Your task to perform on an android device: turn off priority inbox in the gmail app Image 0: 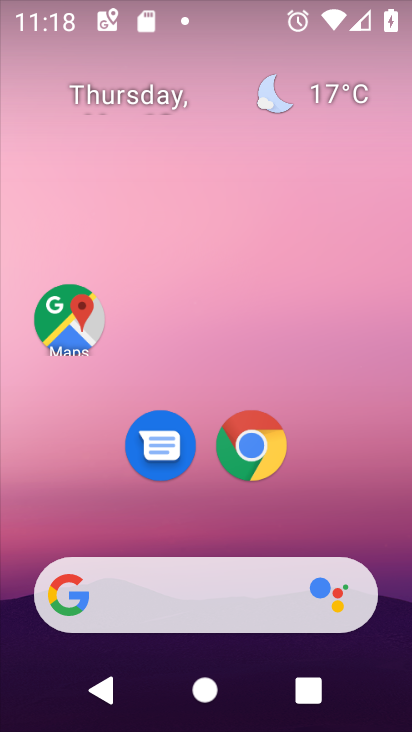
Step 0: drag from (208, 521) to (222, 234)
Your task to perform on an android device: turn off priority inbox in the gmail app Image 1: 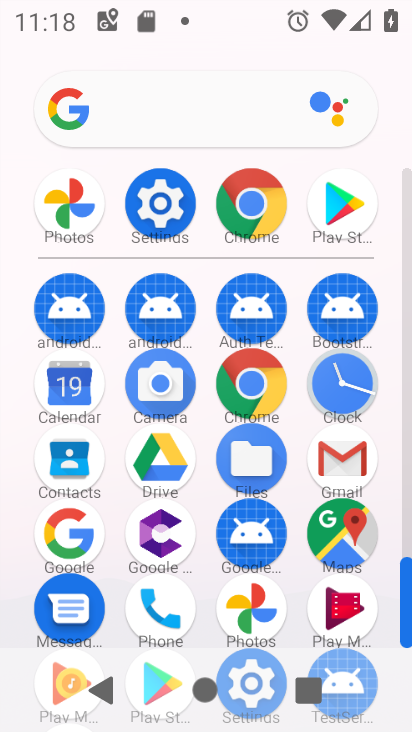
Step 1: click (365, 451)
Your task to perform on an android device: turn off priority inbox in the gmail app Image 2: 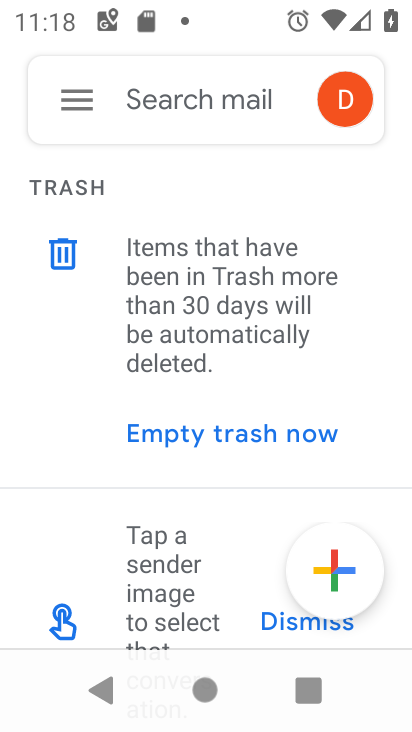
Step 2: click (64, 91)
Your task to perform on an android device: turn off priority inbox in the gmail app Image 3: 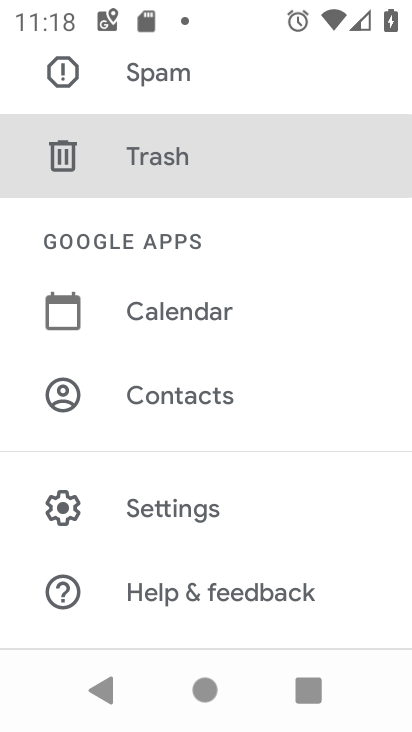
Step 3: click (191, 508)
Your task to perform on an android device: turn off priority inbox in the gmail app Image 4: 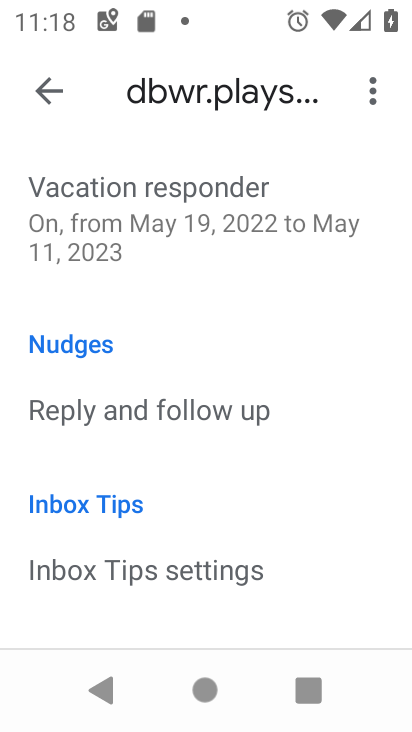
Step 4: drag from (146, 445) to (228, 664)
Your task to perform on an android device: turn off priority inbox in the gmail app Image 5: 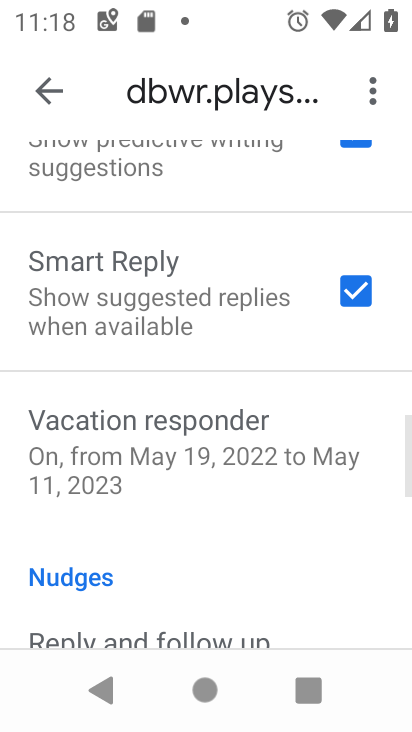
Step 5: drag from (246, 283) to (268, 624)
Your task to perform on an android device: turn off priority inbox in the gmail app Image 6: 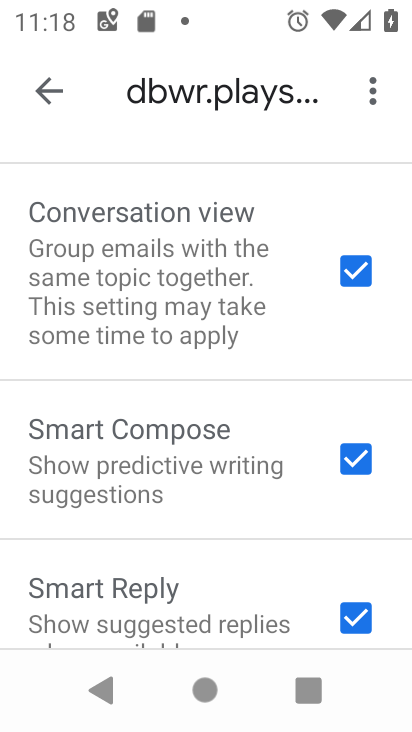
Step 6: drag from (212, 499) to (181, 714)
Your task to perform on an android device: turn off priority inbox in the gmail app Image 7: 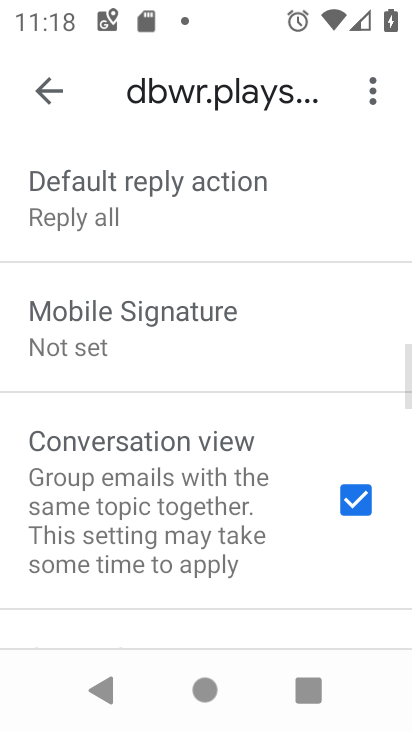
Step 7: drag from (210, 337) to (252, 686)
Your task to perform on an android device: turn off priority inbox in the gmail app Image 8: 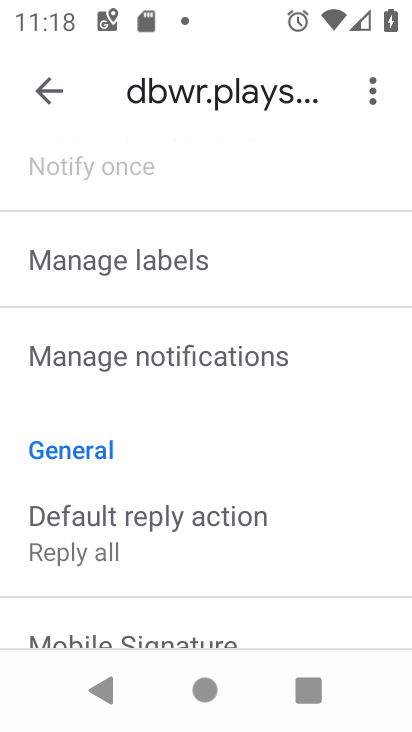
Step 8: drag from (234, 344) to (276, 675)
Your task to perform on an android device: turn off priority inbox in the gmail app Image 9: 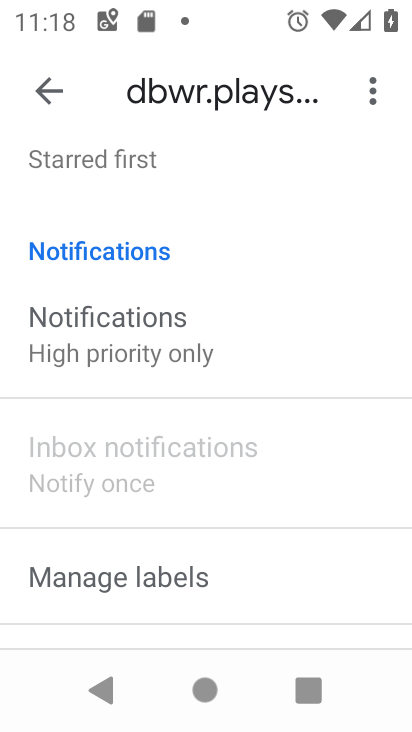
Step 9: drag from (248, 299) to (303, 548)
Your task to perform on an android device: turn off priority inbox in the gmail app Image 10: 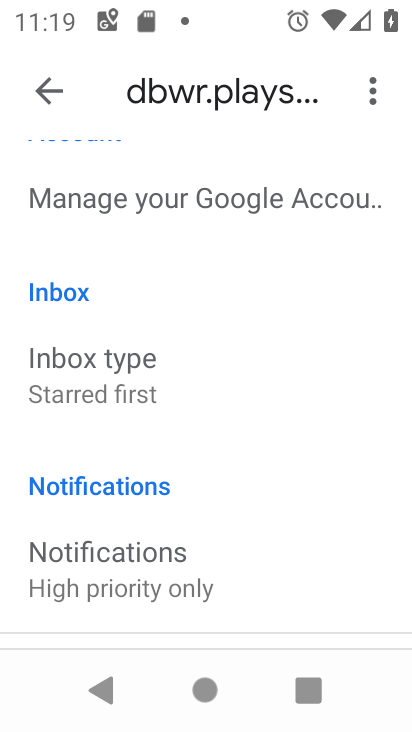
Step 10: click (171, 392)
Your task to perform on an android device: turn off priority inbox in the gmail app Image 11: 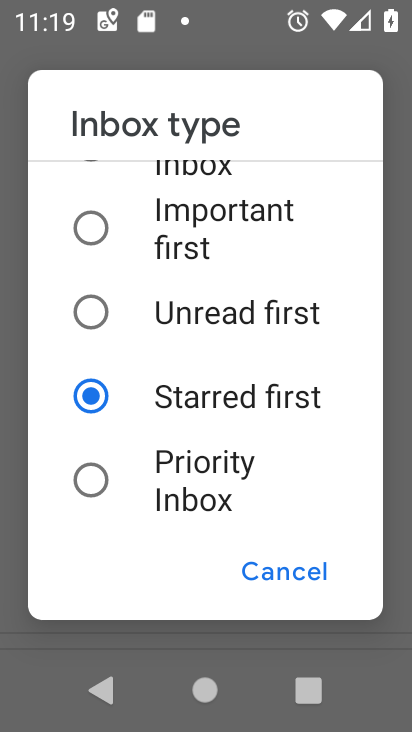
Step 11: task complete